Your task to perform on an android device: add a contact Image 0: 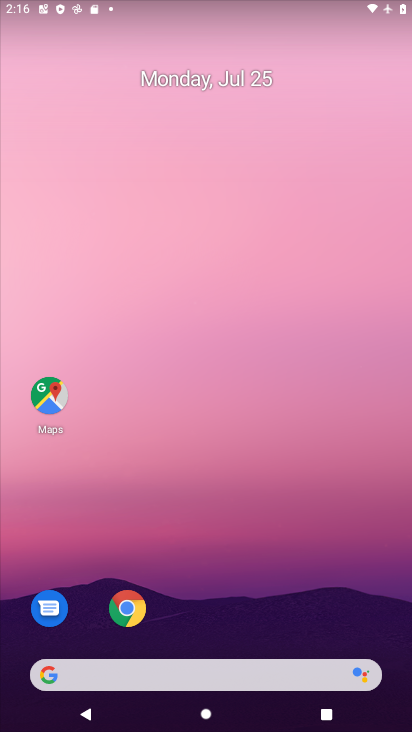
Step 0: drag from (287, 628) to (314, 151)
Your task to perform on an android device: add a contact Image 1: 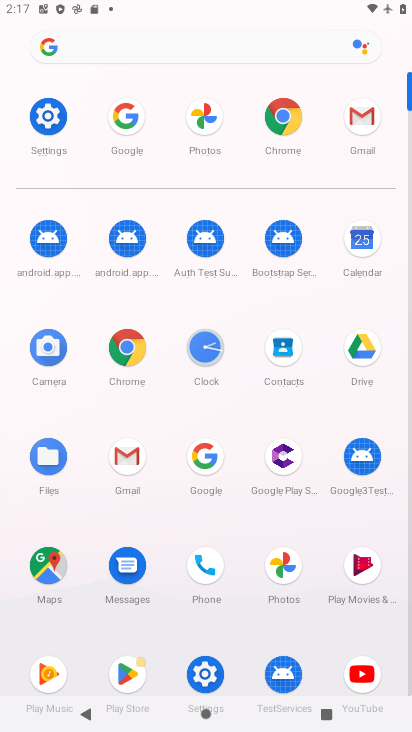
Step 1: click (289, 355)
Your task to perform on an android device: add a contact Image 2: 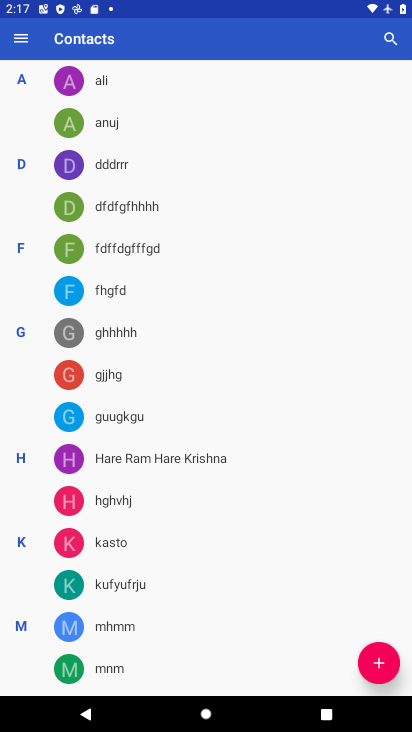
Step 2: click (384, 660)
Your task to perform on an android device: add a contact Image 3: 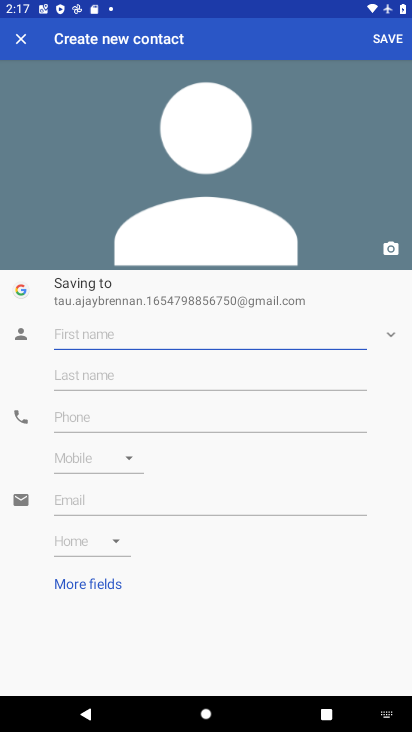
Step 3: type "jhgdfzxgfcvgb"
Your task to perform on an android device: add a contact Image 4: 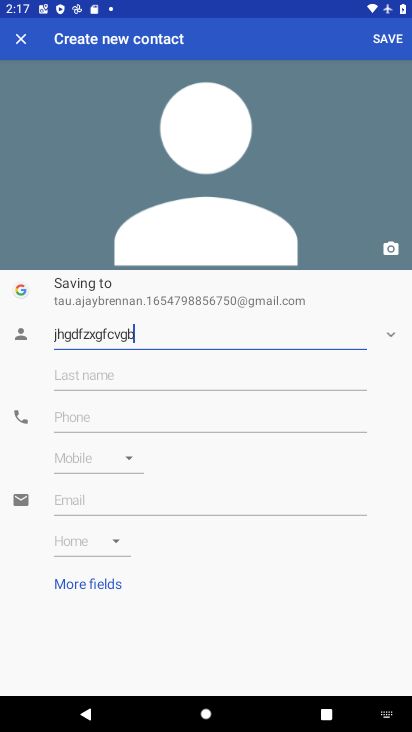
Step 4: click (271, 429)
Your task to perform on an android device: add a contact Image 5: 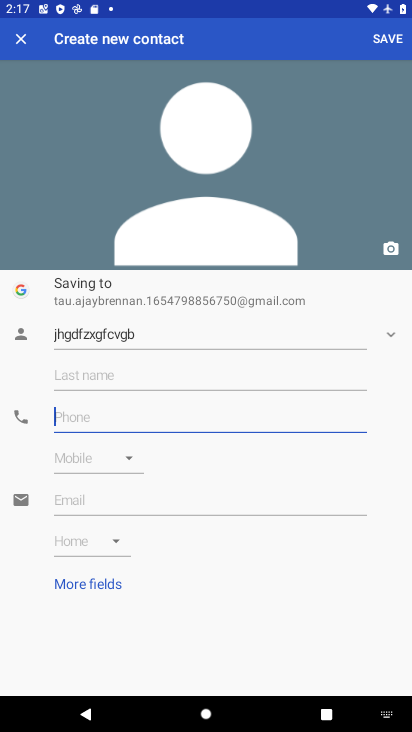
Step 5: type "8764575576"
Your task to perform on an android device: add a contact Image 6: 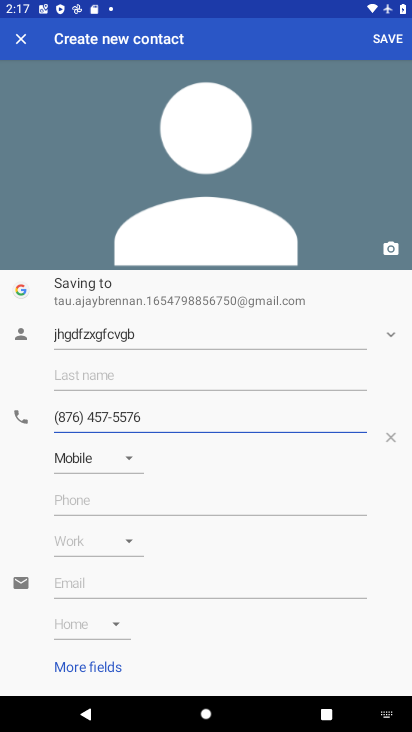
Step 6: click (390, 42)
Your task to perform on an android device: add a contact Image 7: 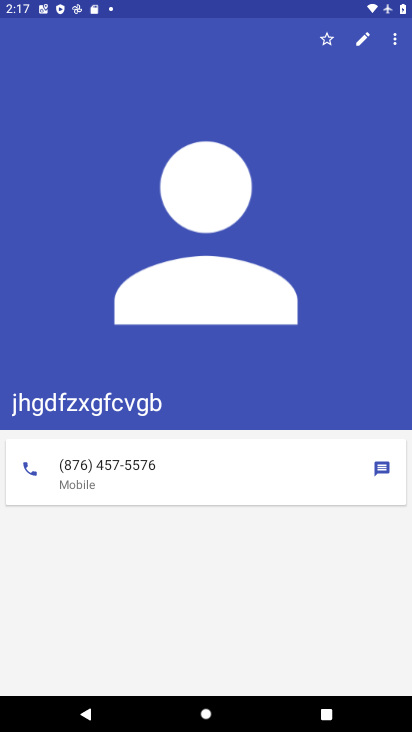
Step 7: task complete